Your task to perform on an android device: Open settings on Google Maps Image 0: 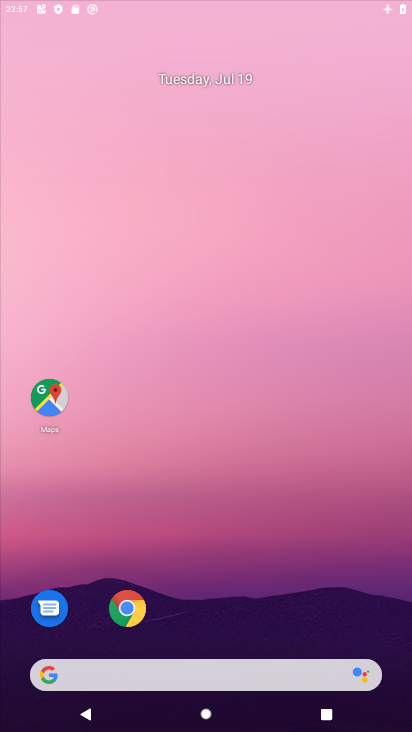
Step 0: click (252, 71)
Your task to perform on an android device: Open settings on Google Maps Image 1: 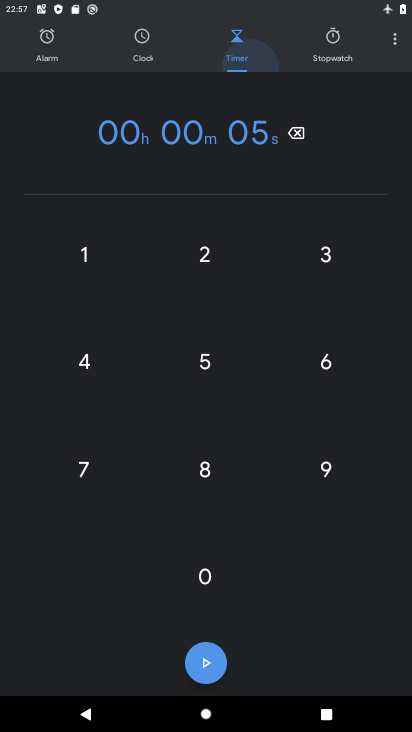
Step 1: drag from (310, 625) to (320, 404)
Your task to perform on an android device: Open settings on Google Maps Image 2: 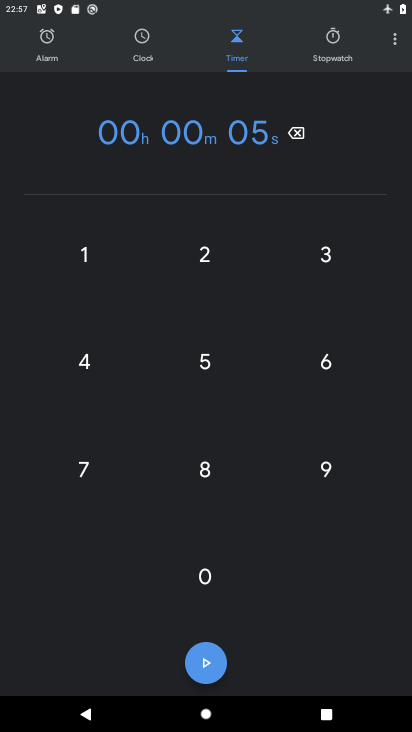
Step 2: press home button
Your task to perform on an android device: Open settings on Google Maps Image 3: 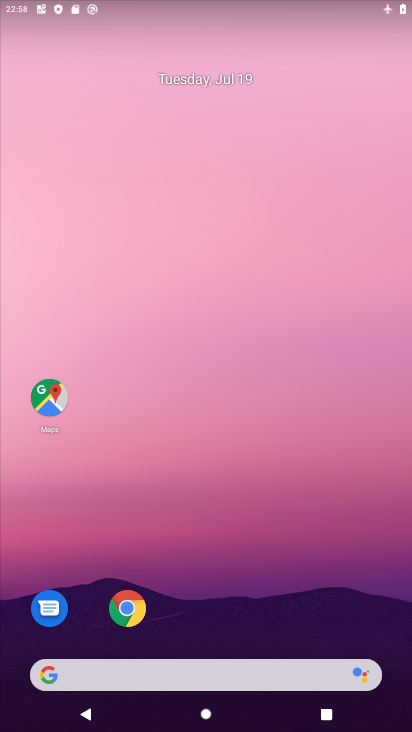
Step 3: drag from (272, 563) to (273, 83)
Your task to perform on an android device: Open settings on Google Maps Image 4: 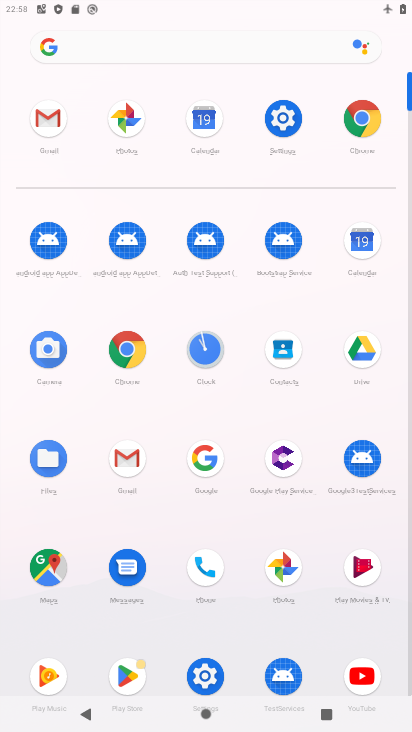
Step 4: click (40, 566)
Your task to perform on an android device: Open settings on Google Maps Image 5: 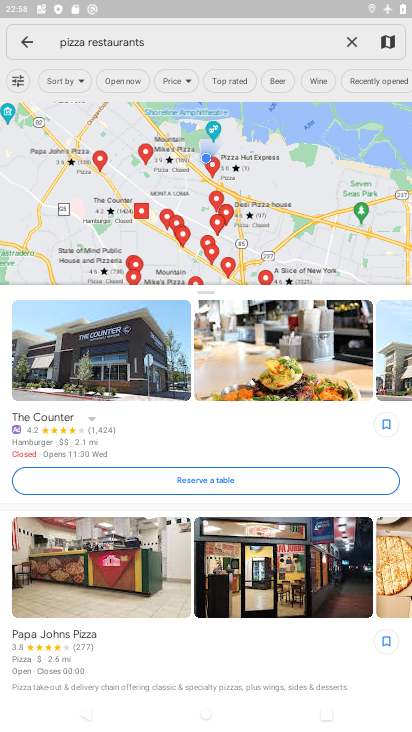
Step 5: click (28, 35)
Your task to perform on an android device: Open settings on Google Maps Image 6: 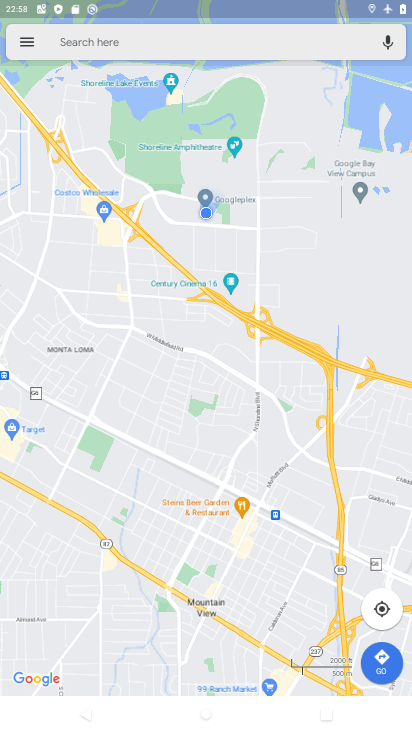
Step 6: click (28, 35)
Your task to perform on an android device: Open settings on Google Maps Image 7: 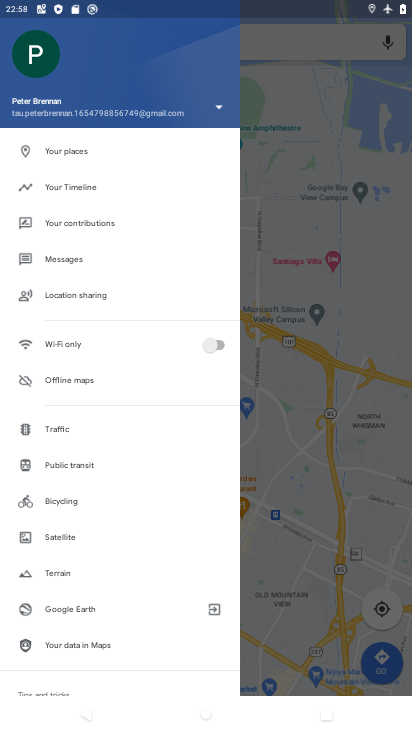
Step 7: drag from (65, 619) to (138, 260)
Your task to perform on an android device: Open settings on Google Maps Image 8: 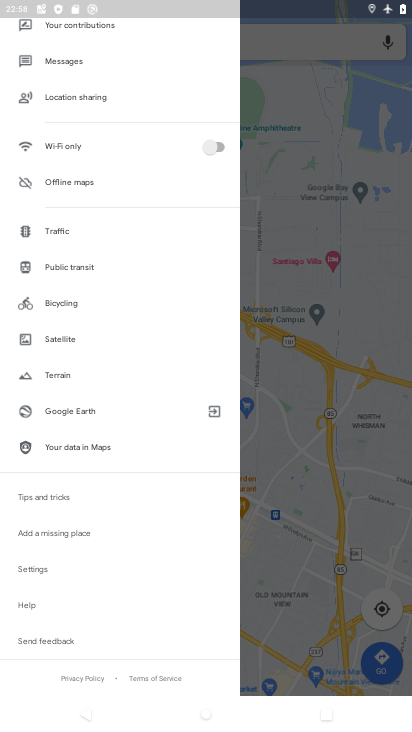
Step 8: click (27, 569)
Your task to perform on an android device: Open settings on Google Maps Image 9: 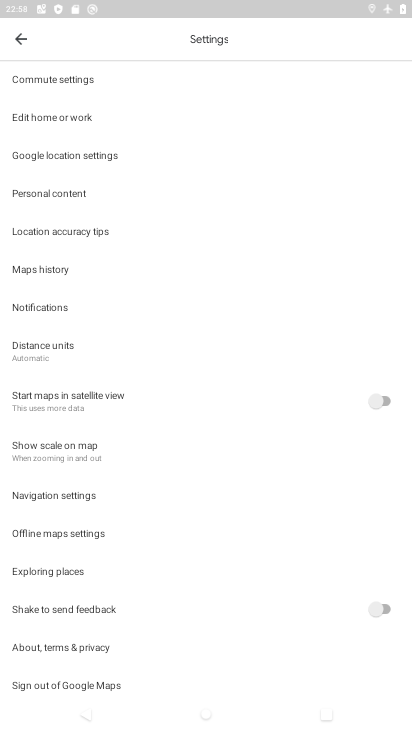
Step 9: task complete